Your task to perform on an android device: open app "Pluto TV - Live TV and Movies" (install if not already installed) and go to login screen Image 0: 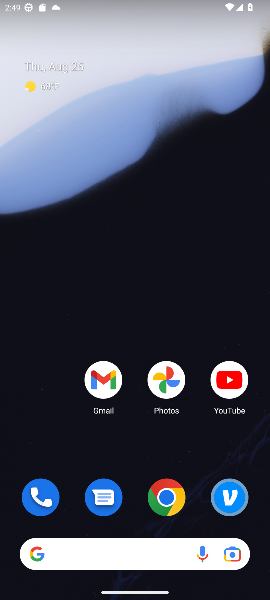
Step 0: click (145, 164)
Your task to perform on an android device: open app "Pluto TV - Live TV and Movies" (install if not already installed) and go to login screen Image 1: 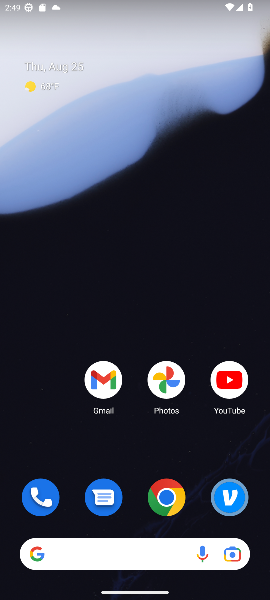
Step 1: drag from (117, 449) to (134, 112)
Your task to perform on an android device: open app "Pluto TV - Live TV and Movies" (install if not already installed) and go to login screen Image 2: 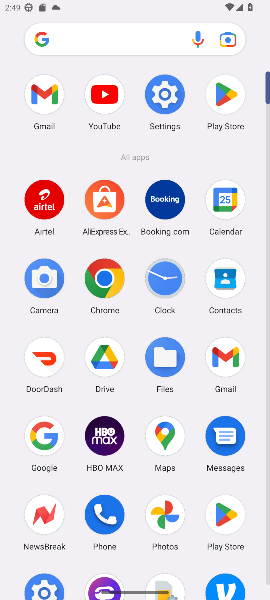
Step 2: click (230, 86)
Your task to perform on an android device: open app "Pluto TV - Live TV and Movies" (install if not already installed) and go to login screen Image 3: 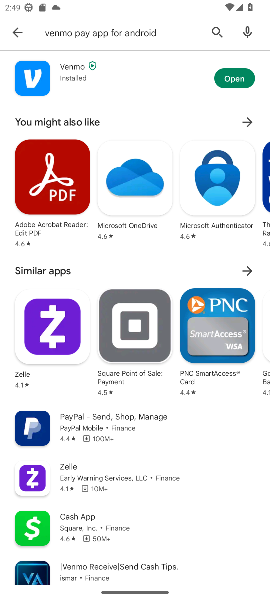
Step 3: click (23, 36)
Your task to perform on an android device: open app "Pluto TV - Live TV and Movies" (install if not already installed) and go to login screen Image 4: 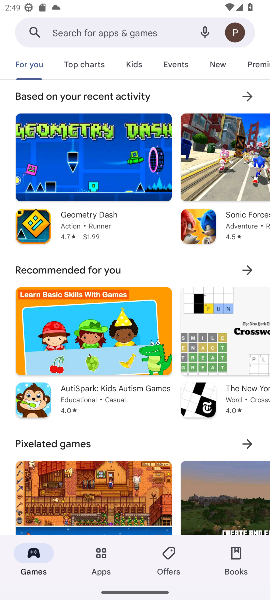
Step 4: click (108, 22)
Your task to perform on an android device: open app "Pluto TV - Live TV and Movies" (install if not already installed) and go to login screen Image 5: 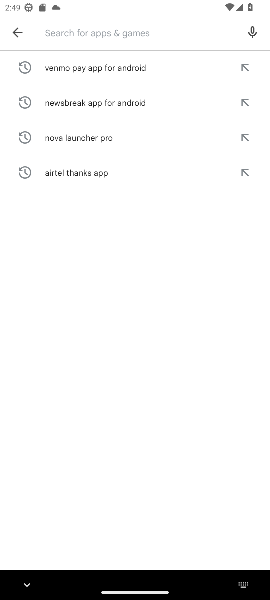
Step 5: type "Pluto TV - Live TV and Movie "
Your task to perform on an android device: open app "Pluto TV - Live TV and Movies" (install if not already installed) and go to login screen Image 6: 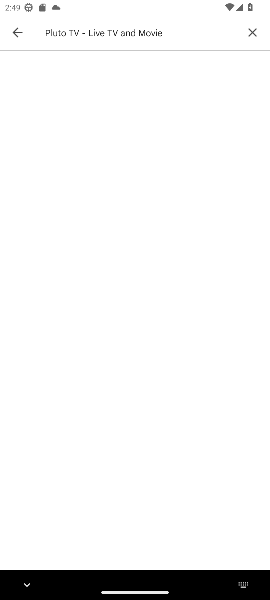
Step 6: click (244, 31)
Your task to perform on an android device: open app "Pluto TV - Live TV and Movies" (install if not already installed) and go to login screen Image 7: 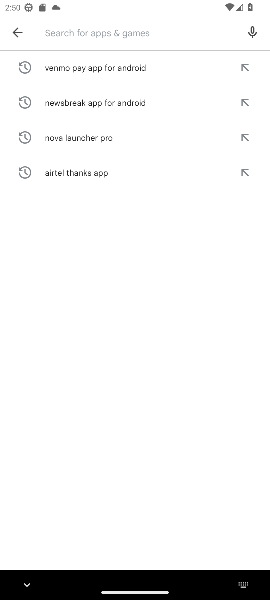
Step 7: click (104, 33)
Your task to perform on an android device: open app "Pluto TV - Live TV and Movies" (install if not already installed) and go to login screen Image 8: 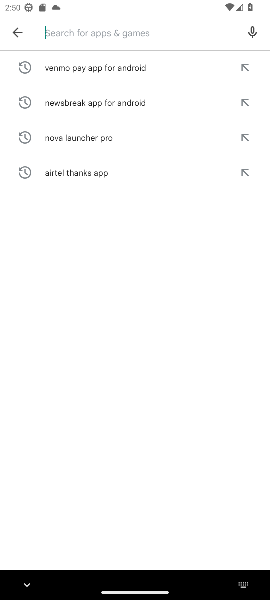
Step 8: type "Pluto TV "
Your task to perform on an android device: open app "Pluto TV - Live TV and Movies" (install if not already installed) and go to login screen Image 9: 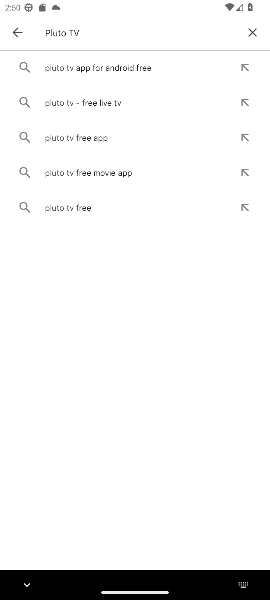
Step 9: click (78, 63)
Your task to perform on an android device: open app "Pluto TV - Live TV and Movies" (install if not already installed) and go to login screen Image 10: 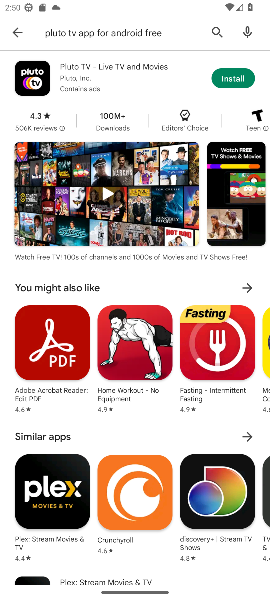
Step 10: click (247, 70)
Your task to perform on an android device: open app "Pluto TV - Live TV and Movies" (install if not already installed) and go to login screen Image 11: 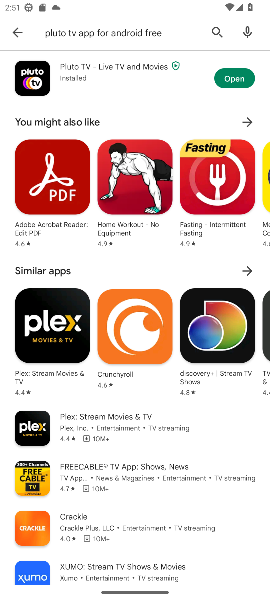
Step 11: click (224, 75)
Your task to perform on an android device: open app "Pluto TV - Live TV and Movies" (install if not already installed) and go to login screen Image 12: 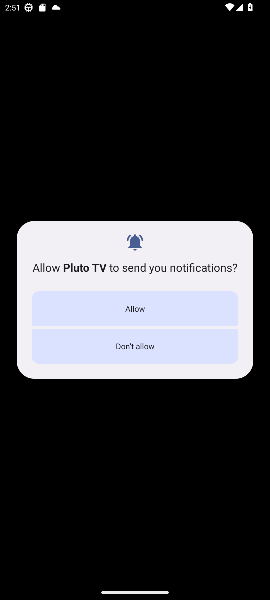
Step 12: click (126, 300)
Your task to perform on an android device: open app "Pluto TV - Live TV and Movies" (install if not already installed) and go to login screen Image 13: 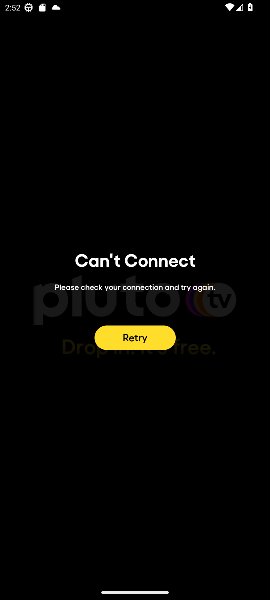
Step 13: task complete